Your task to perform on an android device: Open notification settings Image 0: 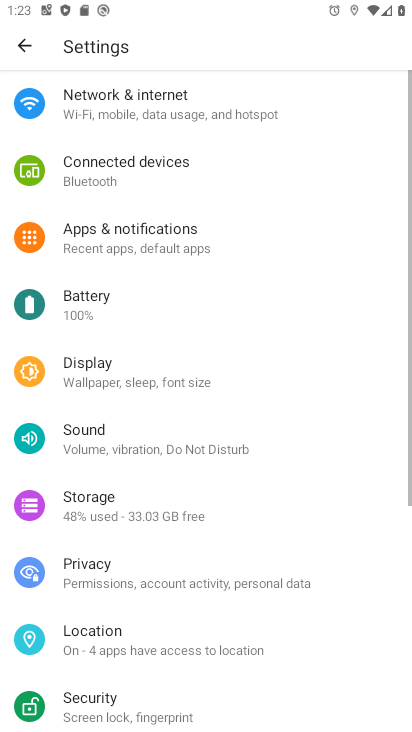
Step 0: click (136, 235)
Your task to perform on an android device: Open notification settings Image 1: 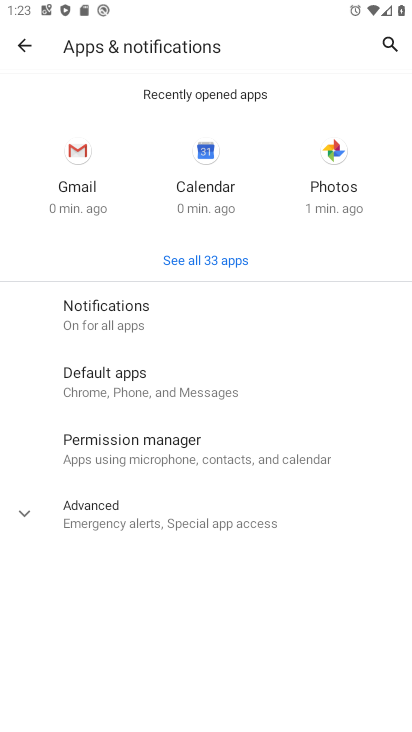
Step 1: click (102, 318)
Your task to perform on an android device: Open notification settings Image 2: 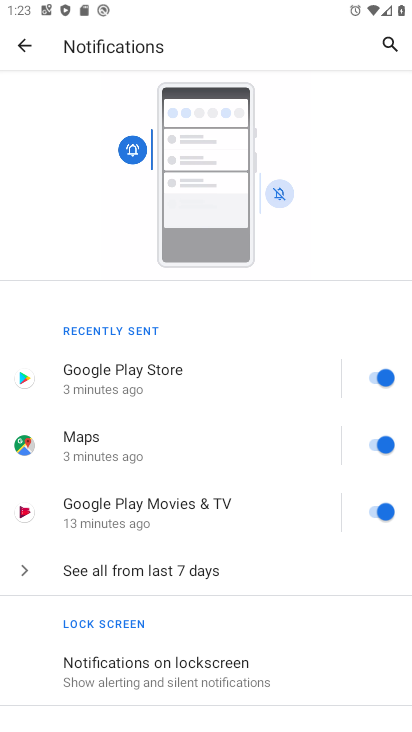
Step 2: task complete